Your task to perform on an android device: toggle notification dots Image 0: 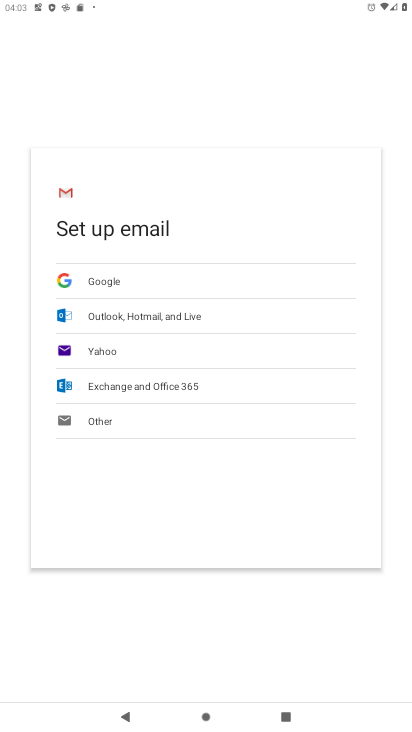
Step 0: press home button
Your task to perform on an android device: toggle notification dots Image 1: 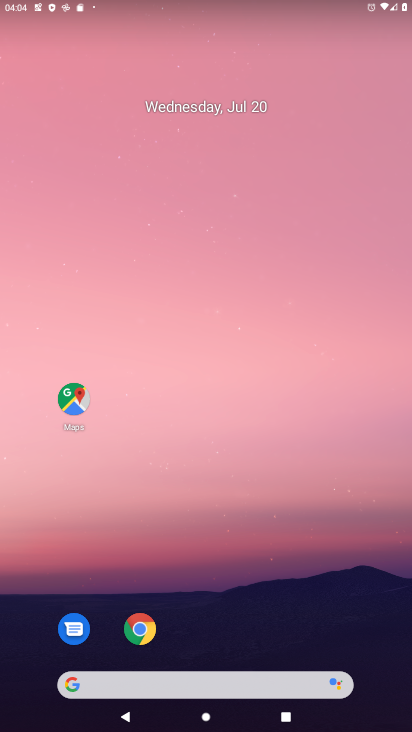
Step 1: drag from (368, 667) to (355, 45)
Your task to perform on an android device: toggle notification dots Image 2: 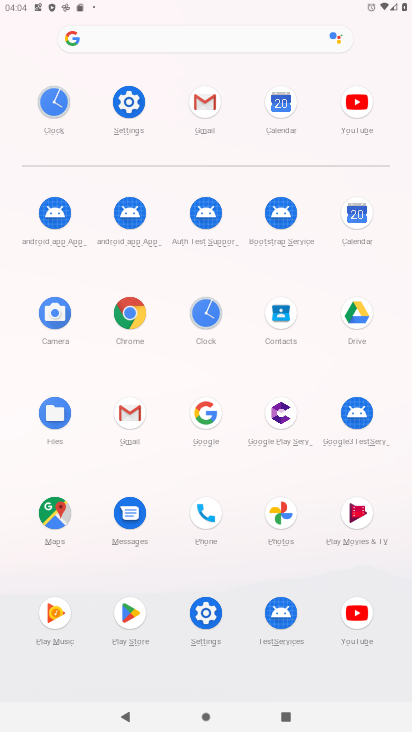
Step 2: click (206, 613)
Your task to perform on an android device: toggle notification dots Image 3: 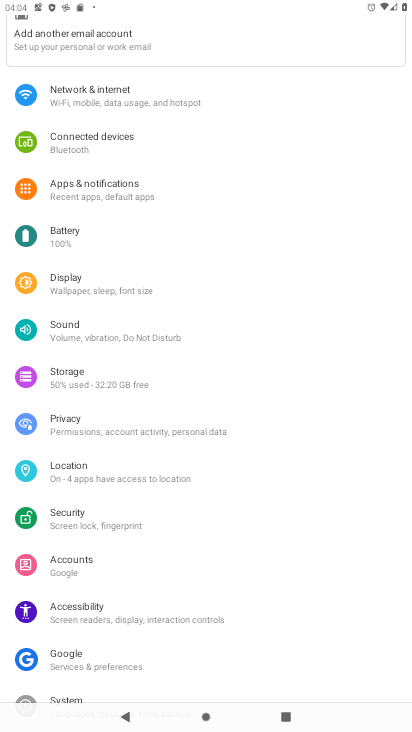
Step 3: click (92, 187)
Your task to perform on an android device: toggle notification dots Image 4: 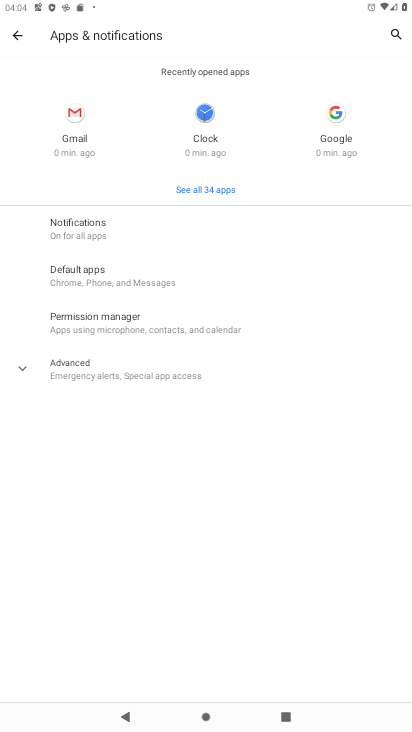
Step 4: click (85, 218)
Your task to perform on an android device: toggle notification dots Image 5: 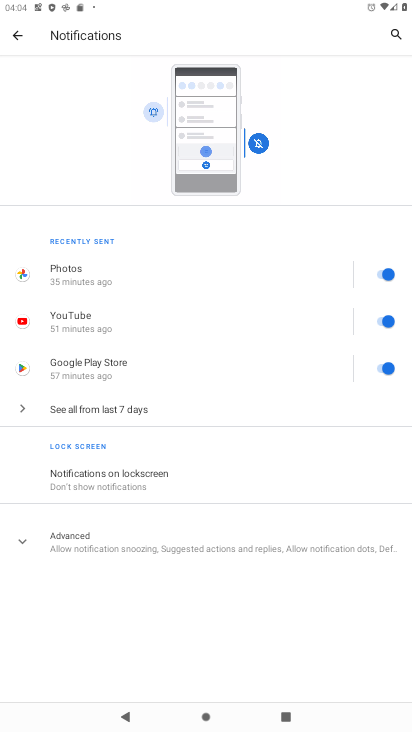
Step 5: click (55, 543)
Your task to perform on an android device: toggle notification dots Image 6: 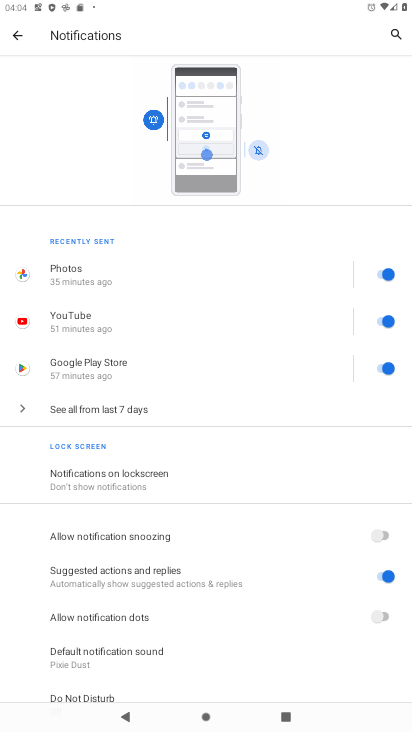
Step 6: click (387, 616)
Your task to perform on an android device: toggle notification dots Image 7: 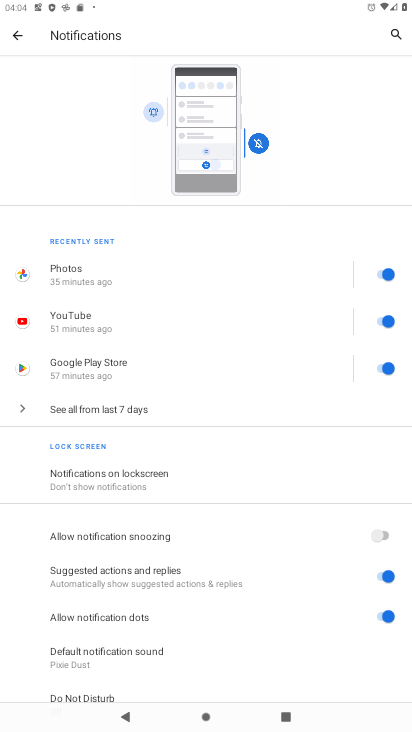
Step 7: task complete